Your task to perform on an android device: Add "logitech g pro" to the cart on bestbuy, then select checkout. Image 0: 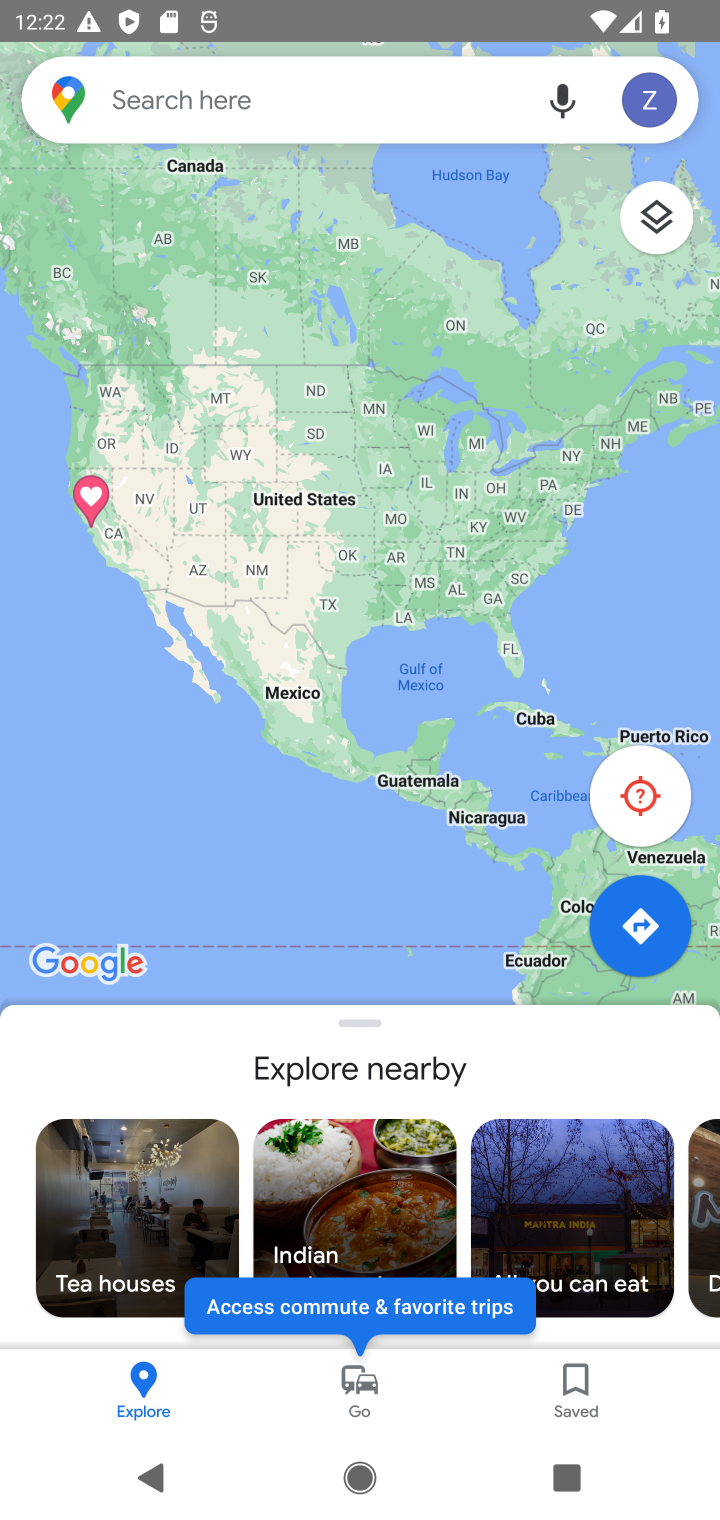
Step 0: press home button
Your task to perform on an android device: Add "logitech g pro" to the cart on bestbuy, then select checkout. Image 1: 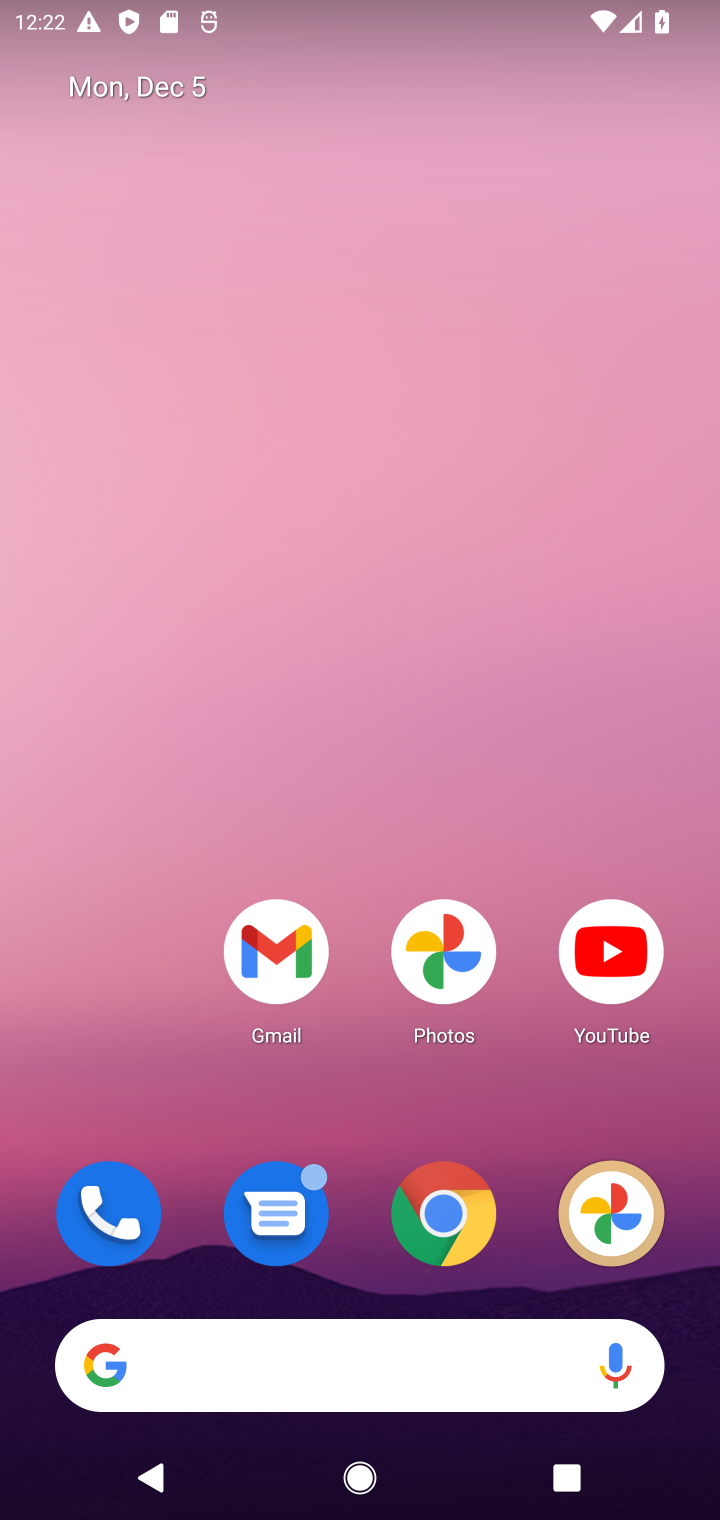
Step 1: click (452, 1223)
Your task to perform on an android device: Add "logitech g pro" to the cart on bestbuy, then select checkout. Image 2: 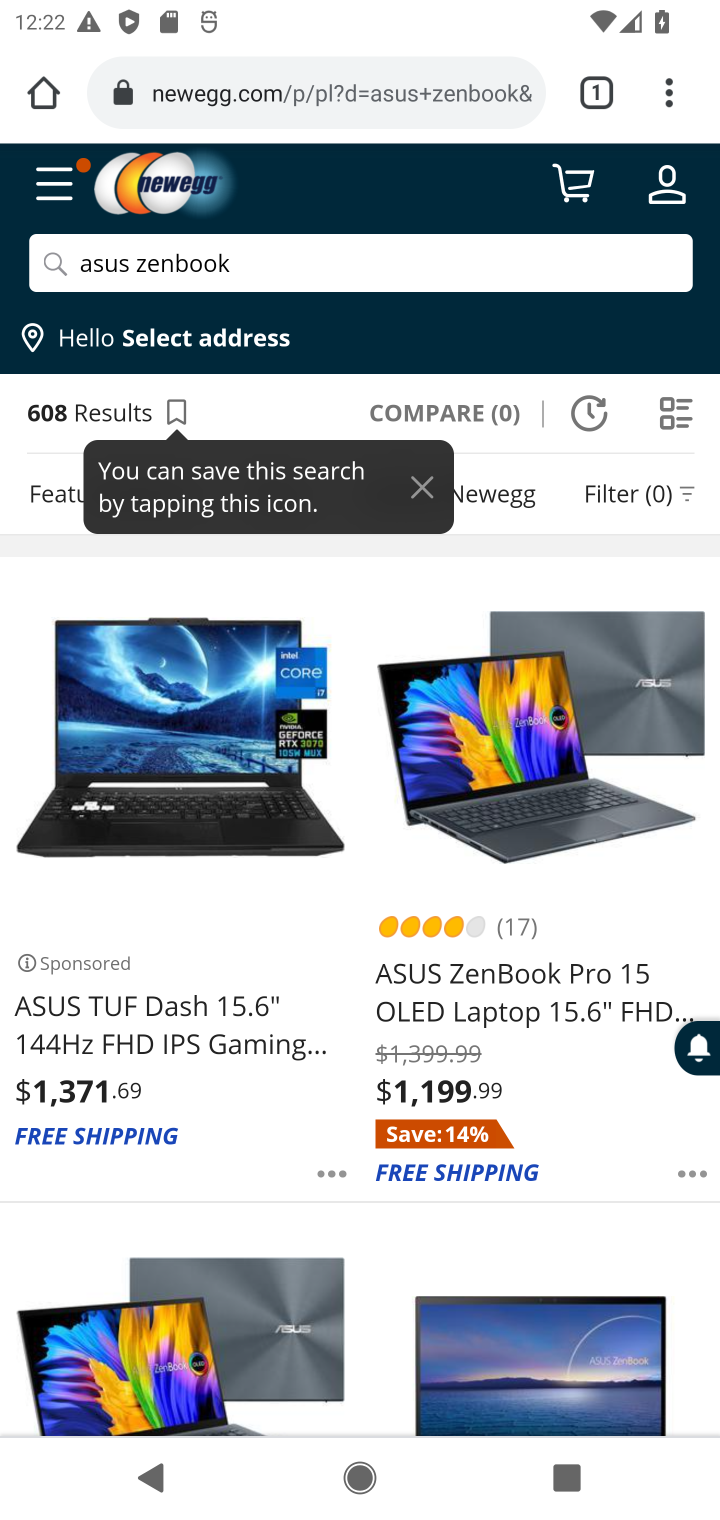
Step 2: click (318, 89)
Your task to perform on an android device: Add "logitech g pro" to the cart on bestbuy, then select checkout. Image 3: 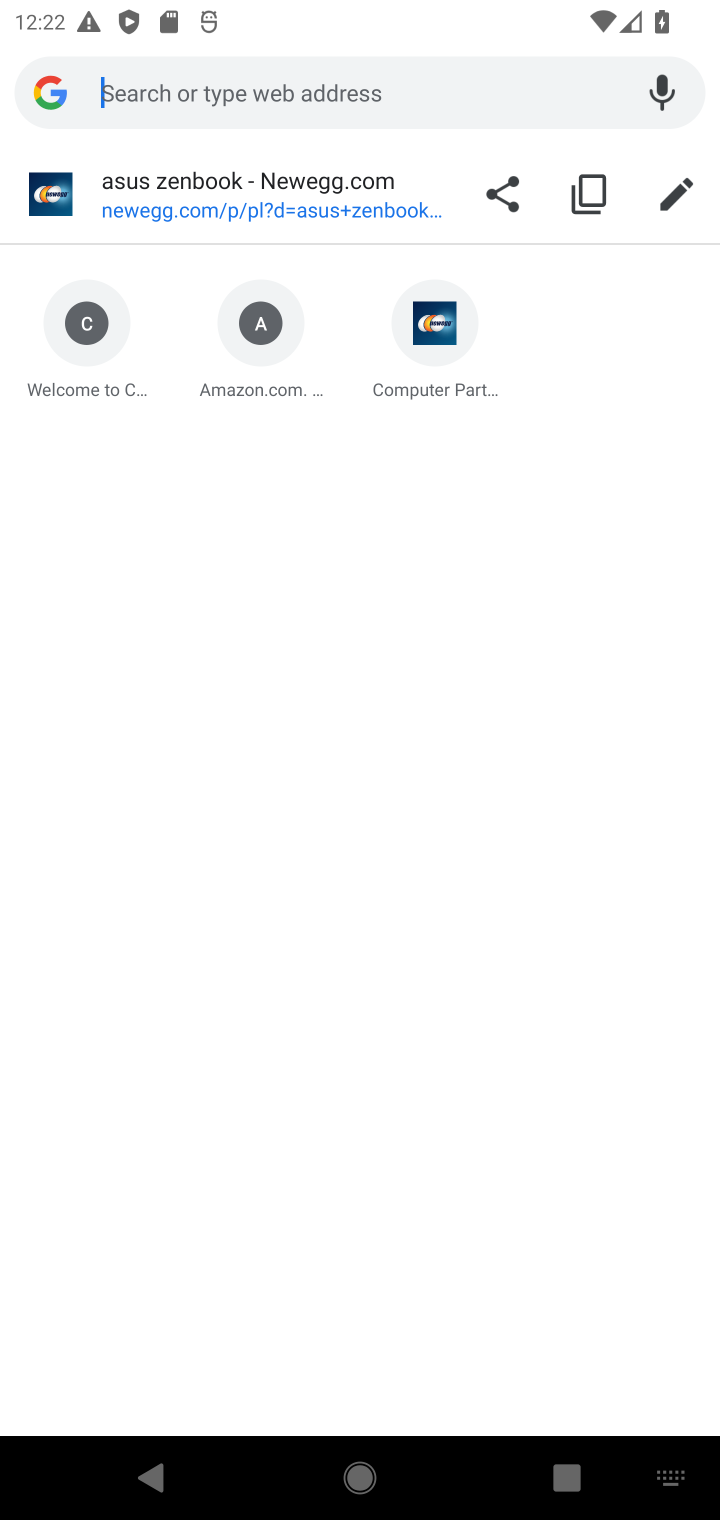
Step 3: type "bestbuy.com"
Your task to perform on an android device: Add "logitech g pro" to the cart on bestbuy, then select checkout. Image 4: 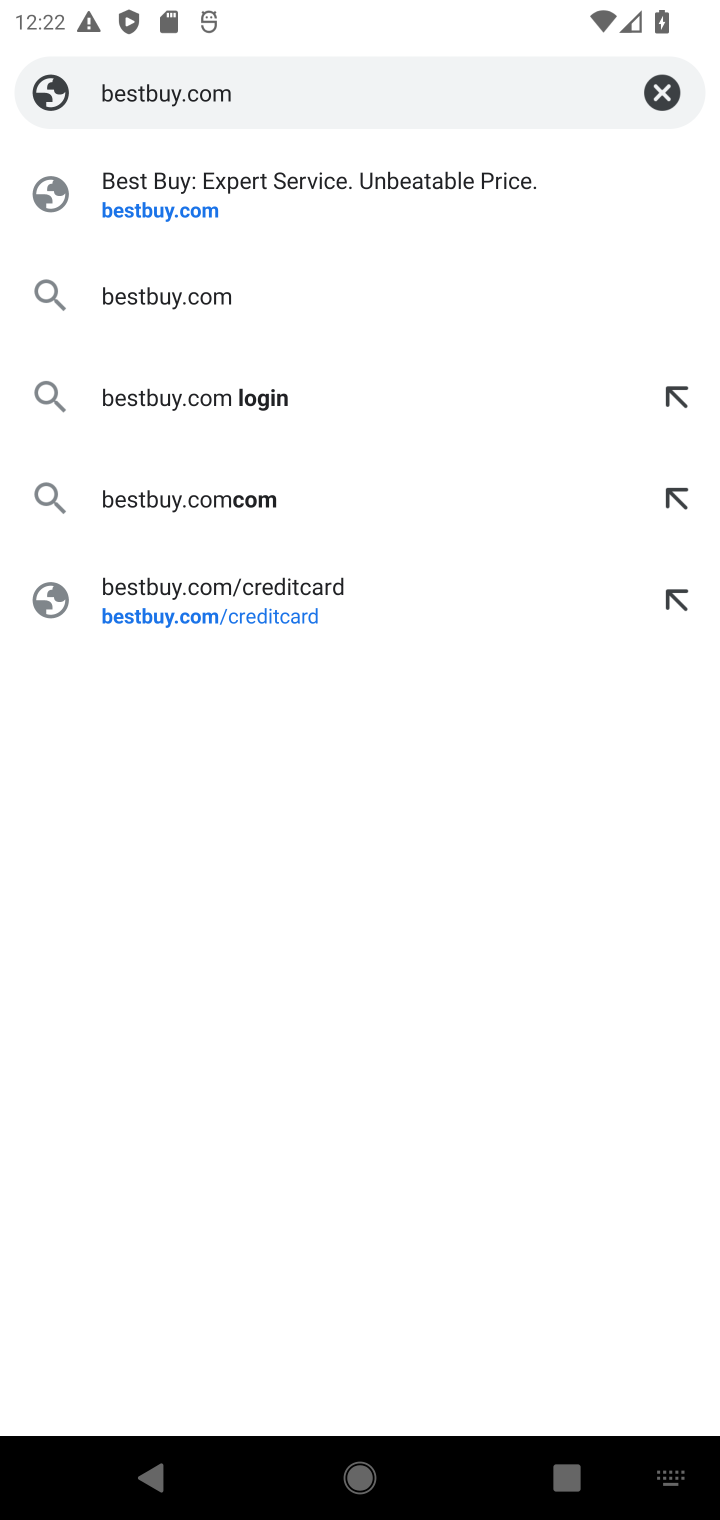
Step 4: click (164, 214)
Your task to perform on an android device: Add "logitech g pro" to the cart on bestbuy, then select checkout. Image 5: 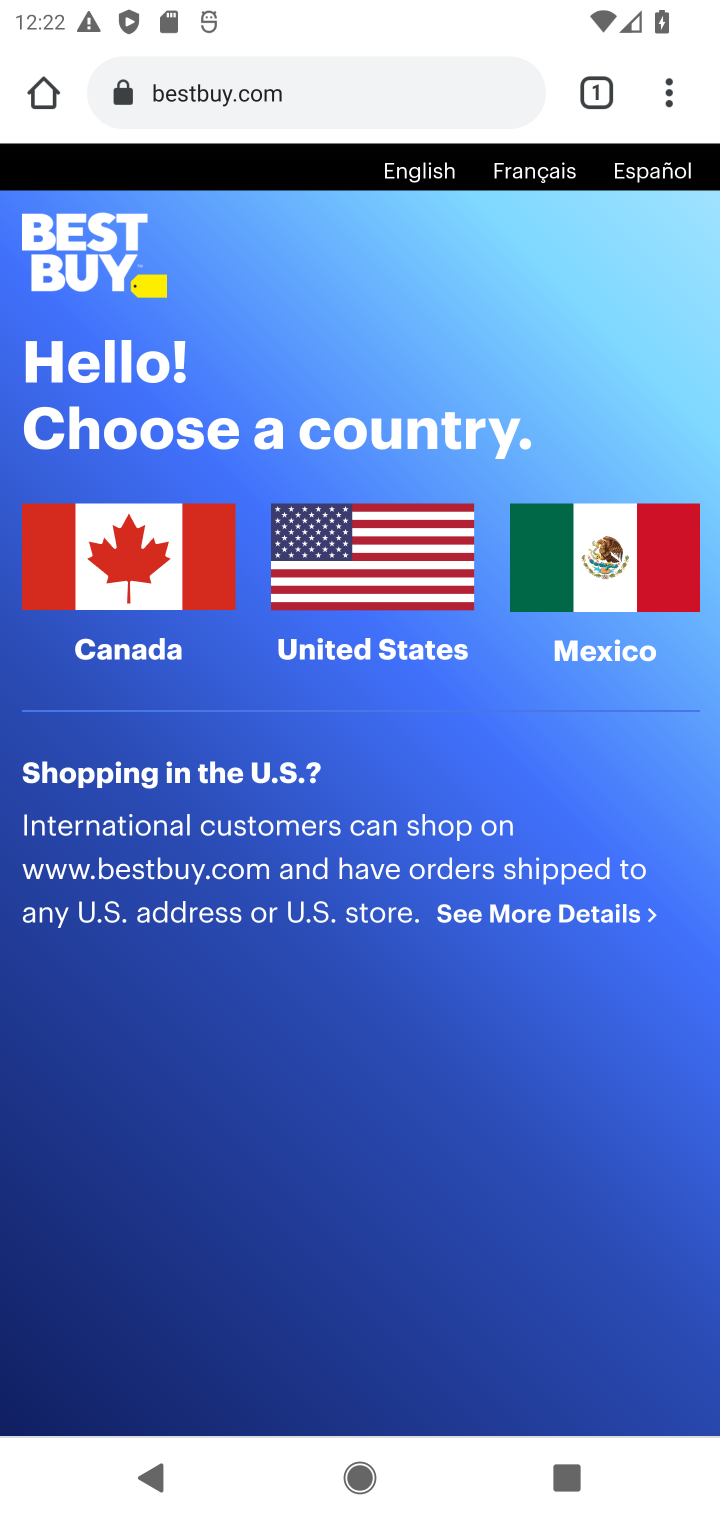
Step 5: click (367, 569)
Your task to perform on an android device: Add "logitech g pro" to the cart on bestbuy, then select checkout. Image 6: 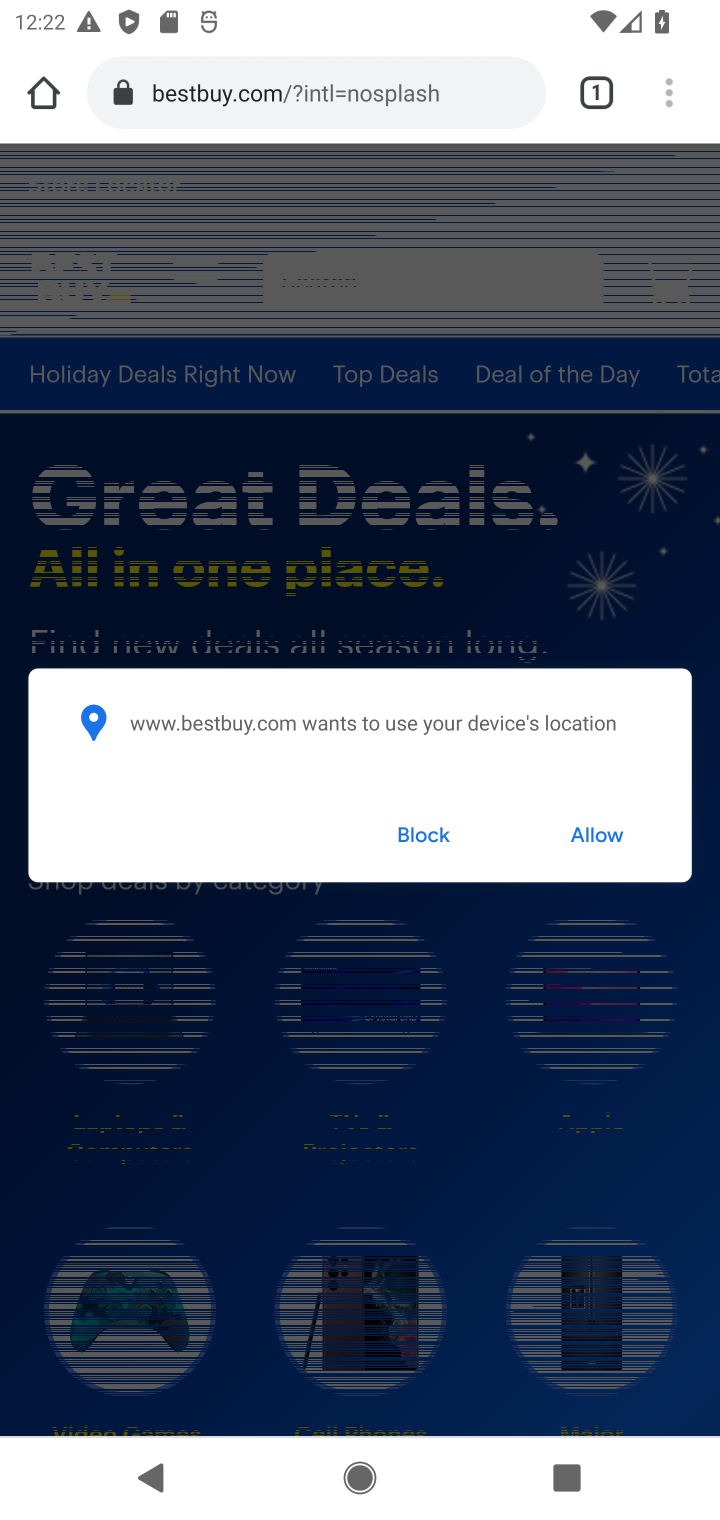
Step 6: click (400, 830)
Your task to perform on an android device: Add "logitech g pro" to the cart on bestbuy, then select checkout. Image 7: 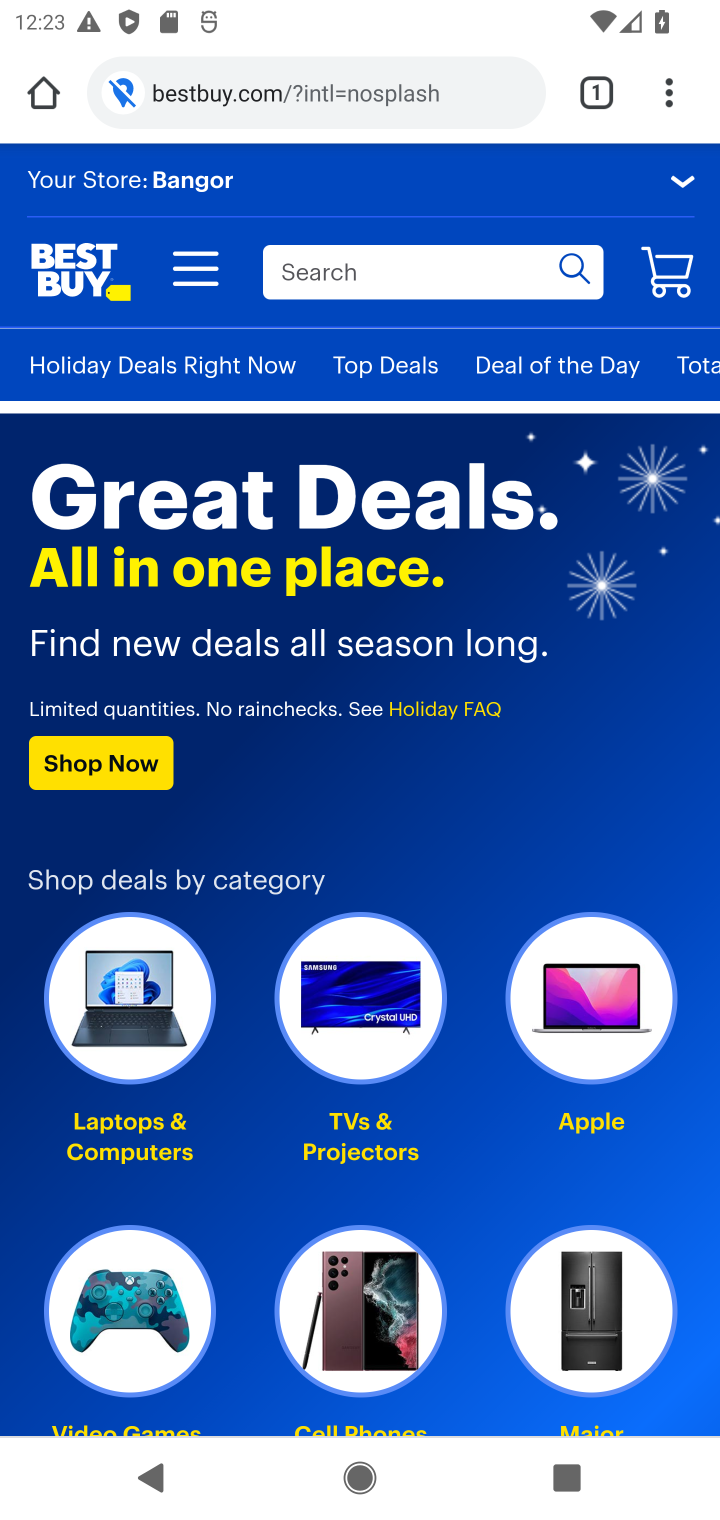
Step 7: click (312, 272)
Your task to perform on an android device: Add "logitech g pro" to the cart on bestbuy, then select checkout. Image 8: 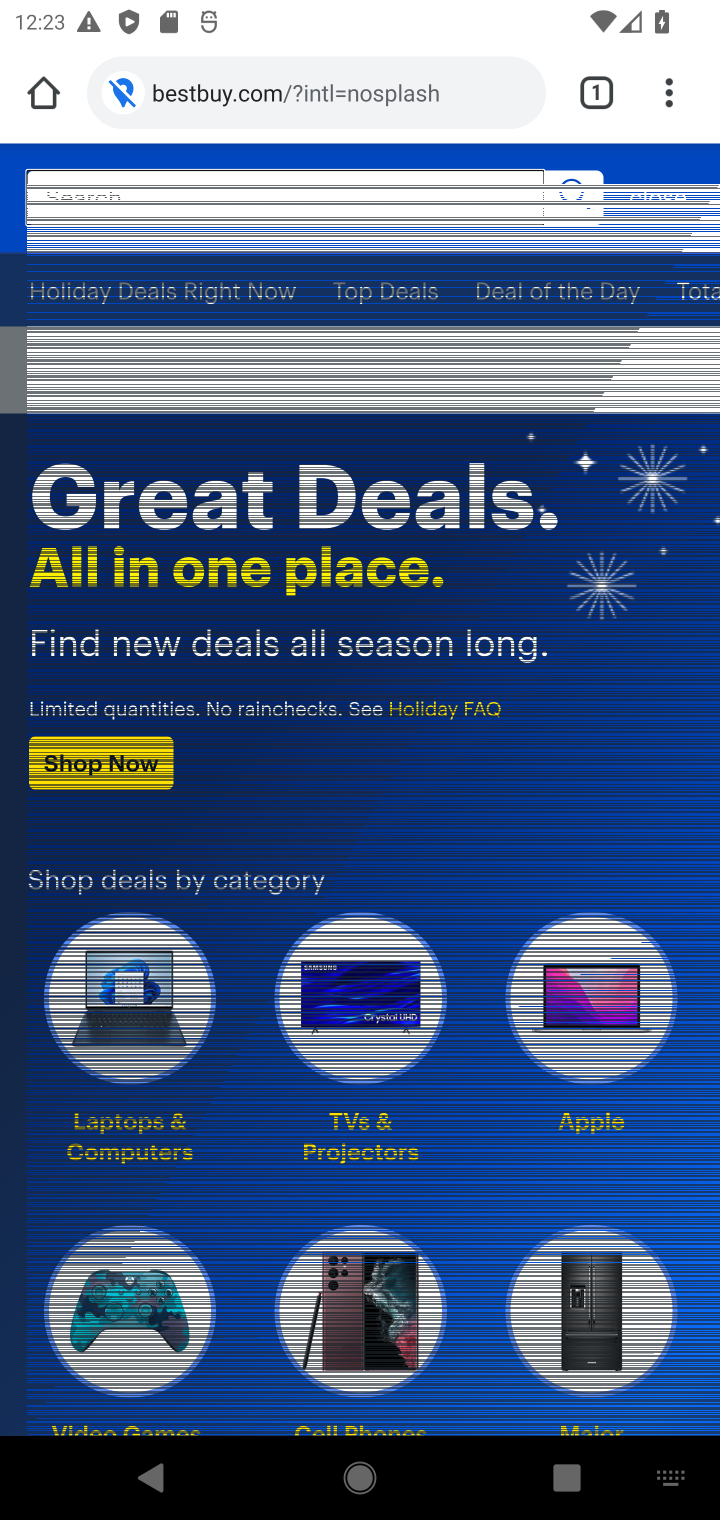
Step 8: type "logitech g pro"
Your task to perform on an android device: Add "logitech g pro" to the cart on bestbuy, then select checkout. Image 9: 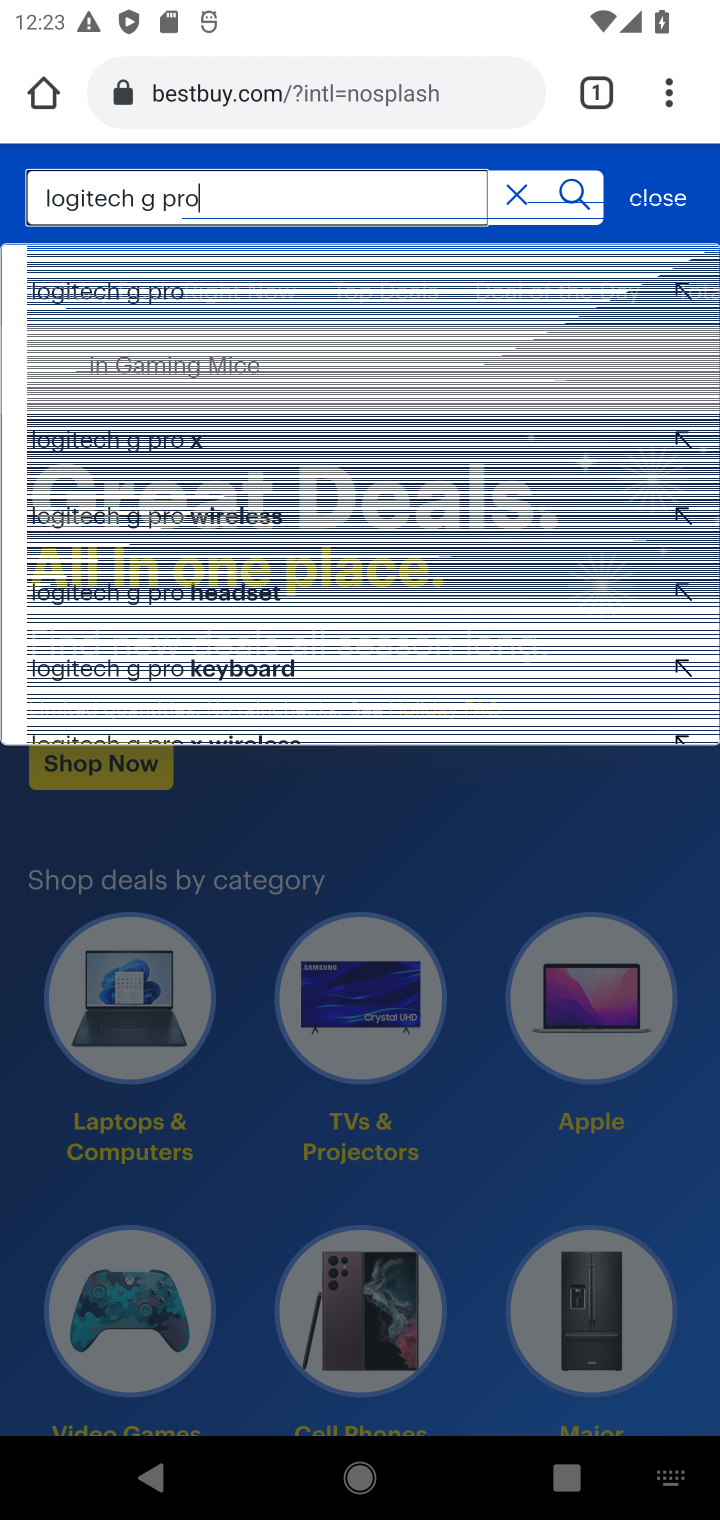
Step 9: click (574, 188)
Your task to perform on an android device: Add "logitech g pro" to the cart on bestbuy, then select checkout. Image 10: 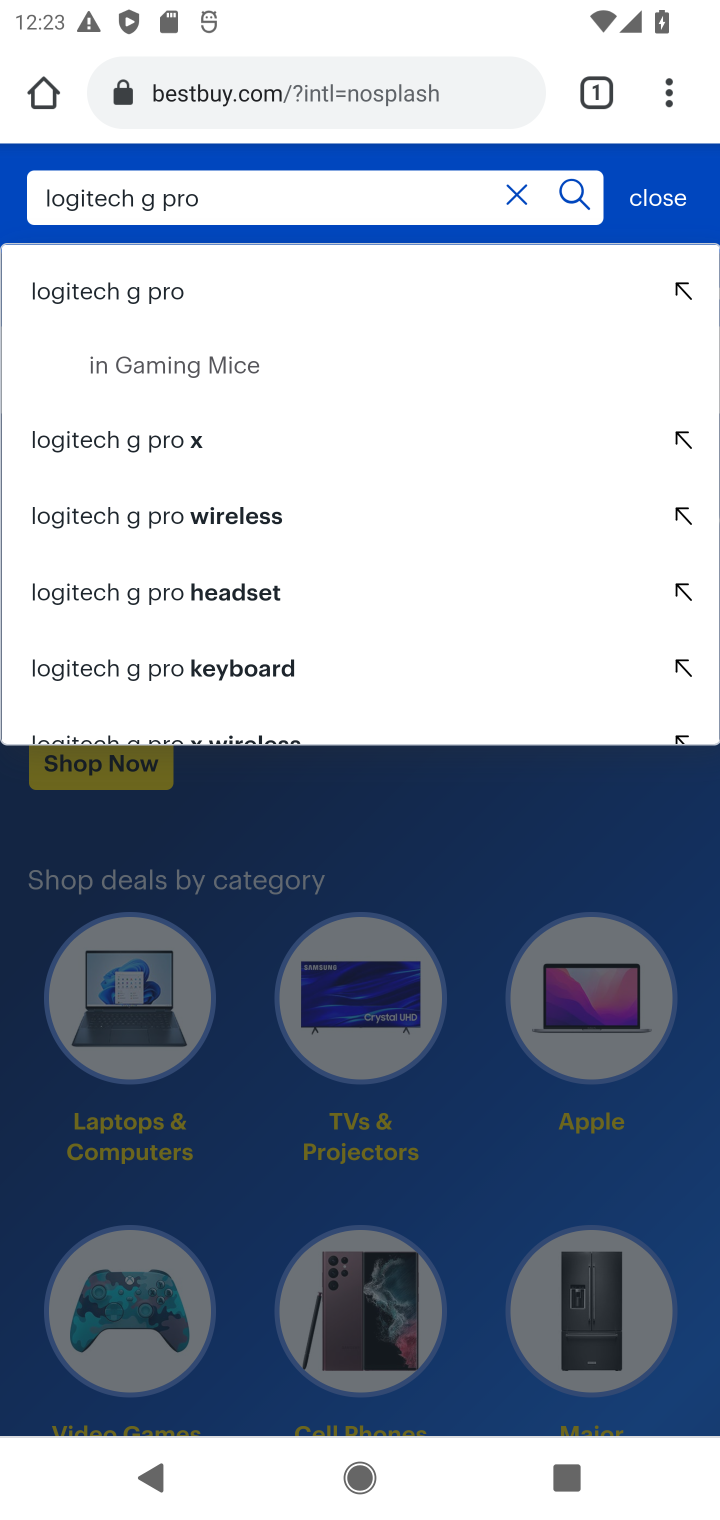
Step 10: click (108, 293)
Your task to perform on an android device: Add "logitech g pro" to the cart on bestbuy, then select checkout. Image 11: 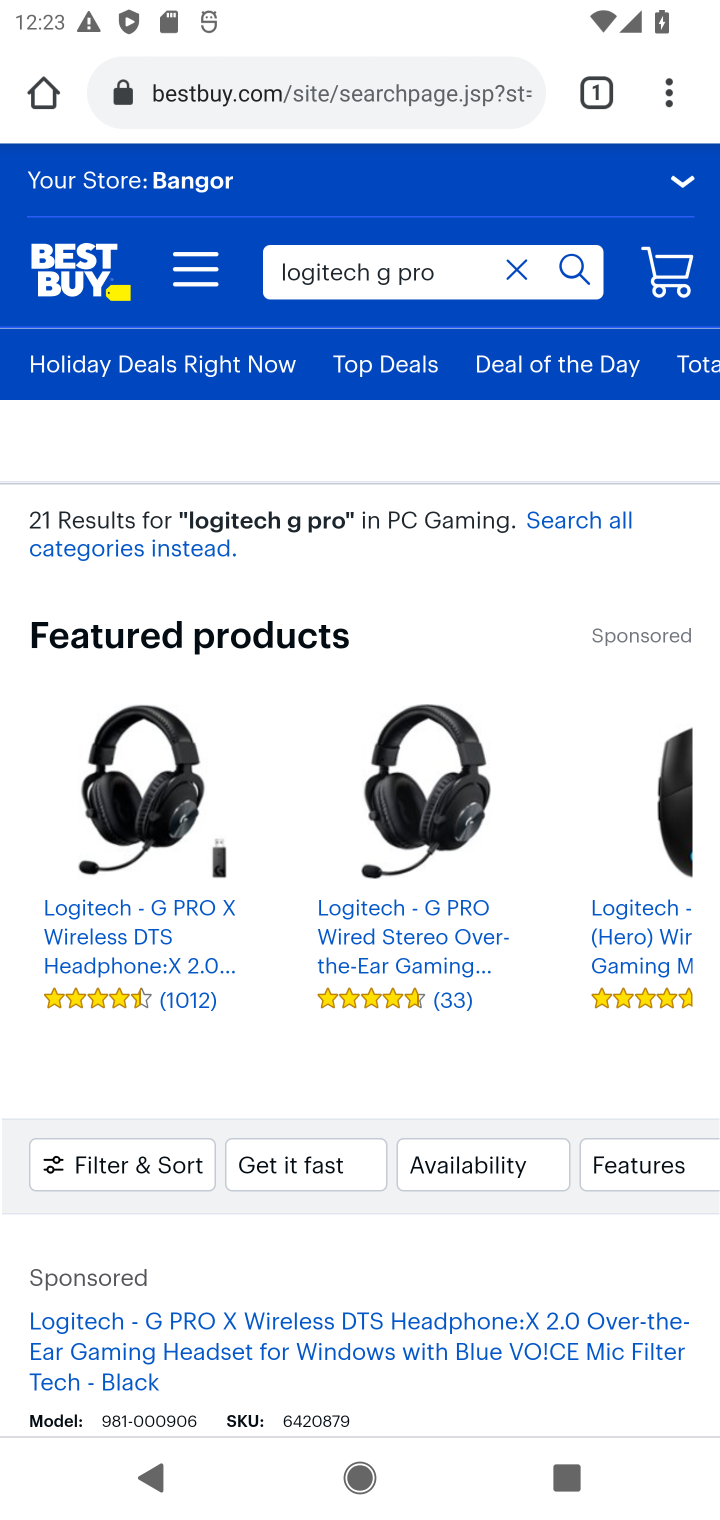
Step 11: drag from (327, 966) to (325, 566)
Your task to perform on an android device: Add "logitech g pro" to the cart on bestbuy, then select checkout. Image 12: 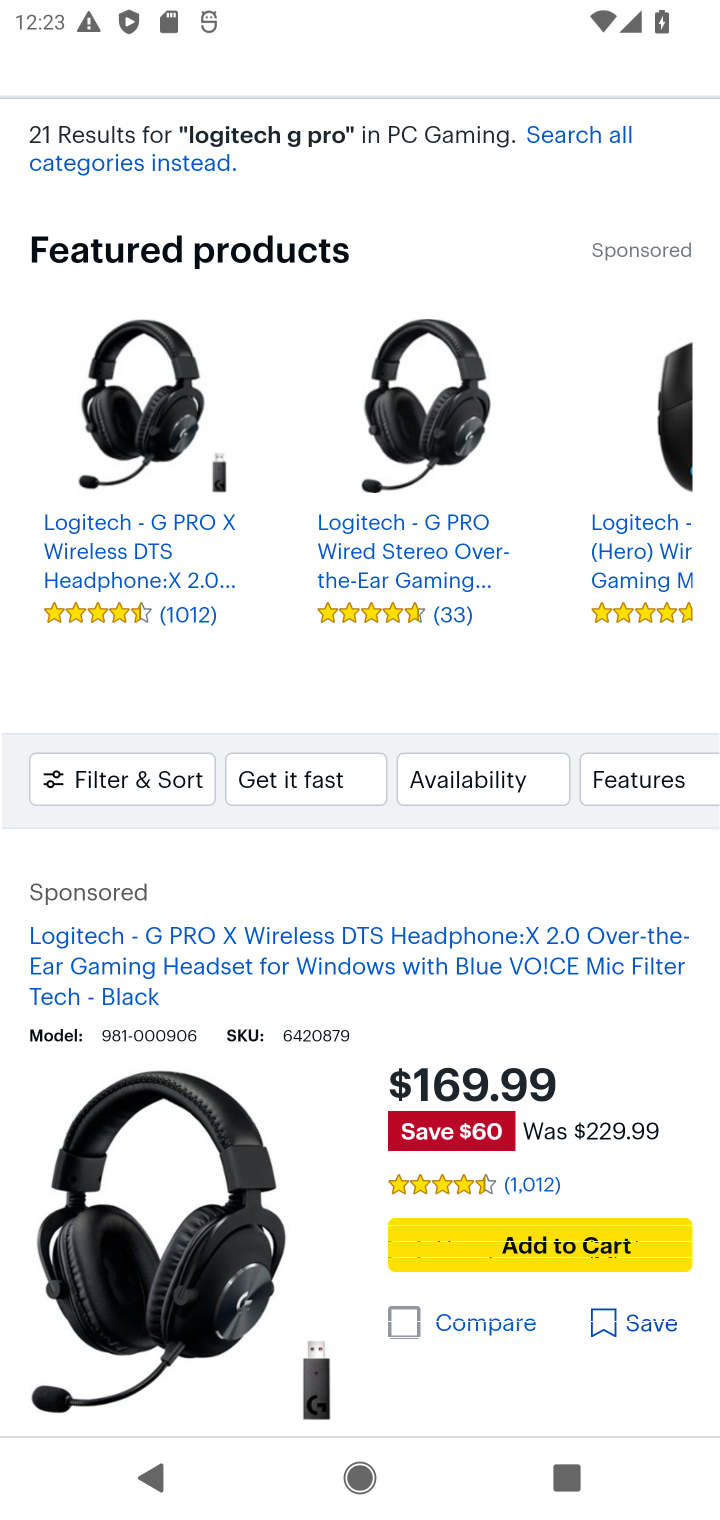
Step 12: drag from (269, 957) to (269, 569)
Your task to perform on an android device: Add "logitech g pro" to the cart on bestbuy, then select checkout. Image 13: 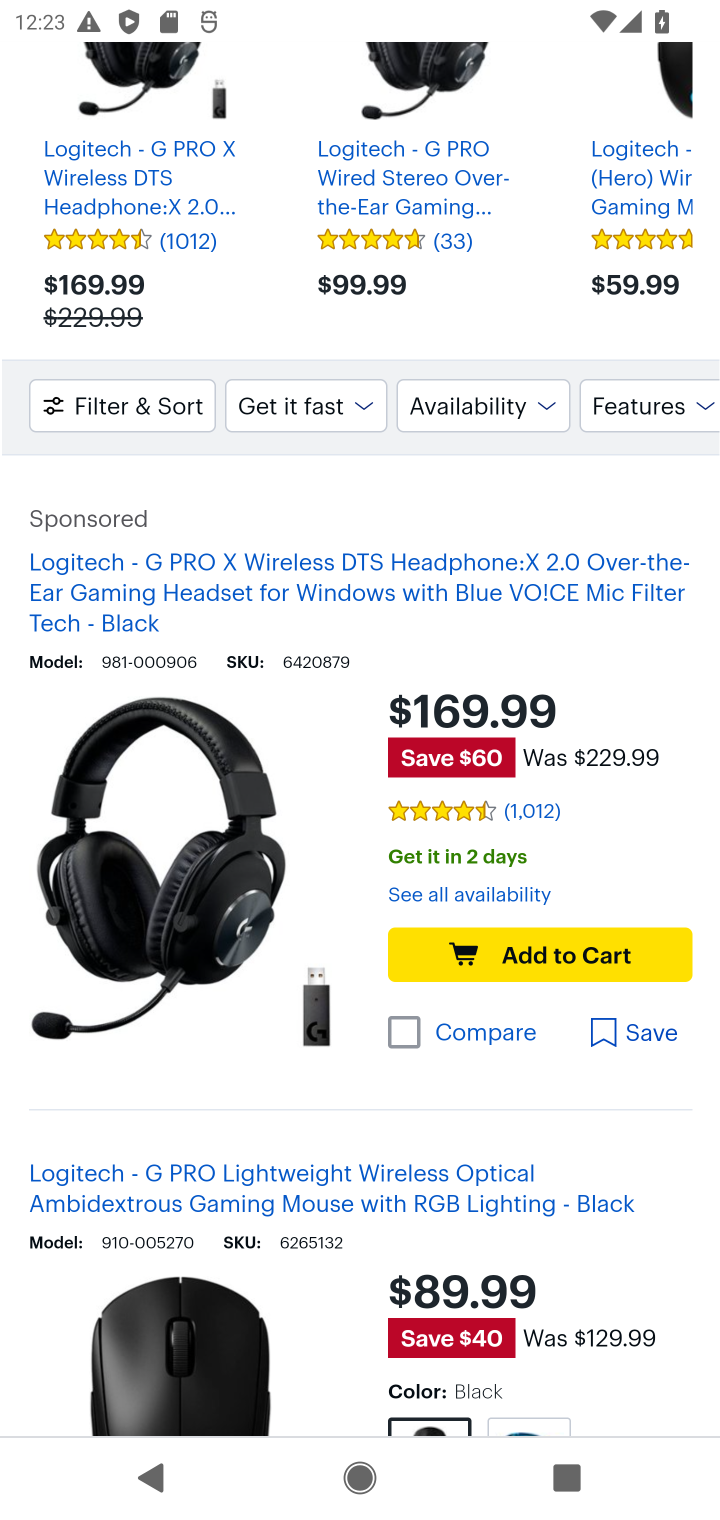
Step 13: click (547, 959)
Your task to perform on an android device: Add "logitech g pro" to the cart on bestbuy, then select checkout. Image 14: 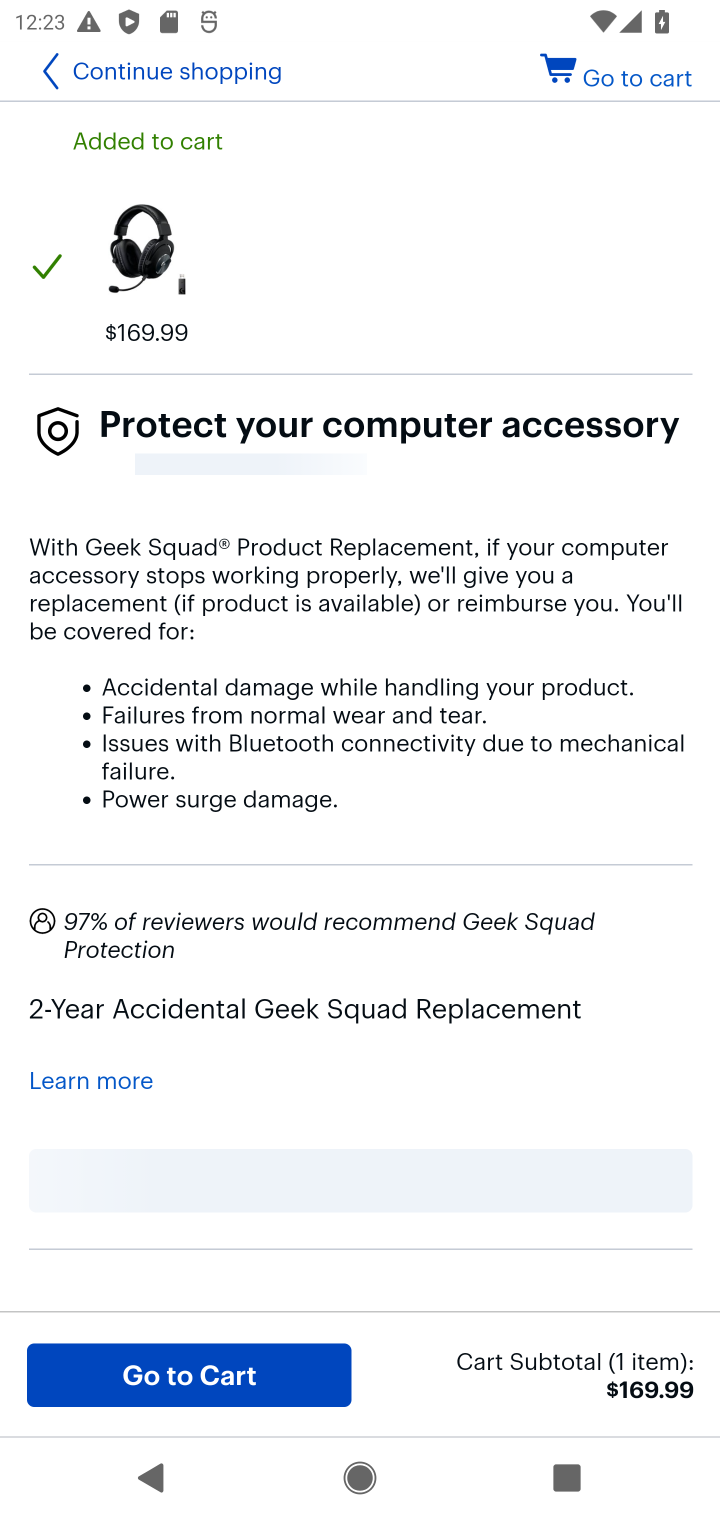
Step 14: click (638, 78)
Your task to perform on an android device: Add "logitech g pro" to the cart on bestbuy, then select checkout. Image 15: 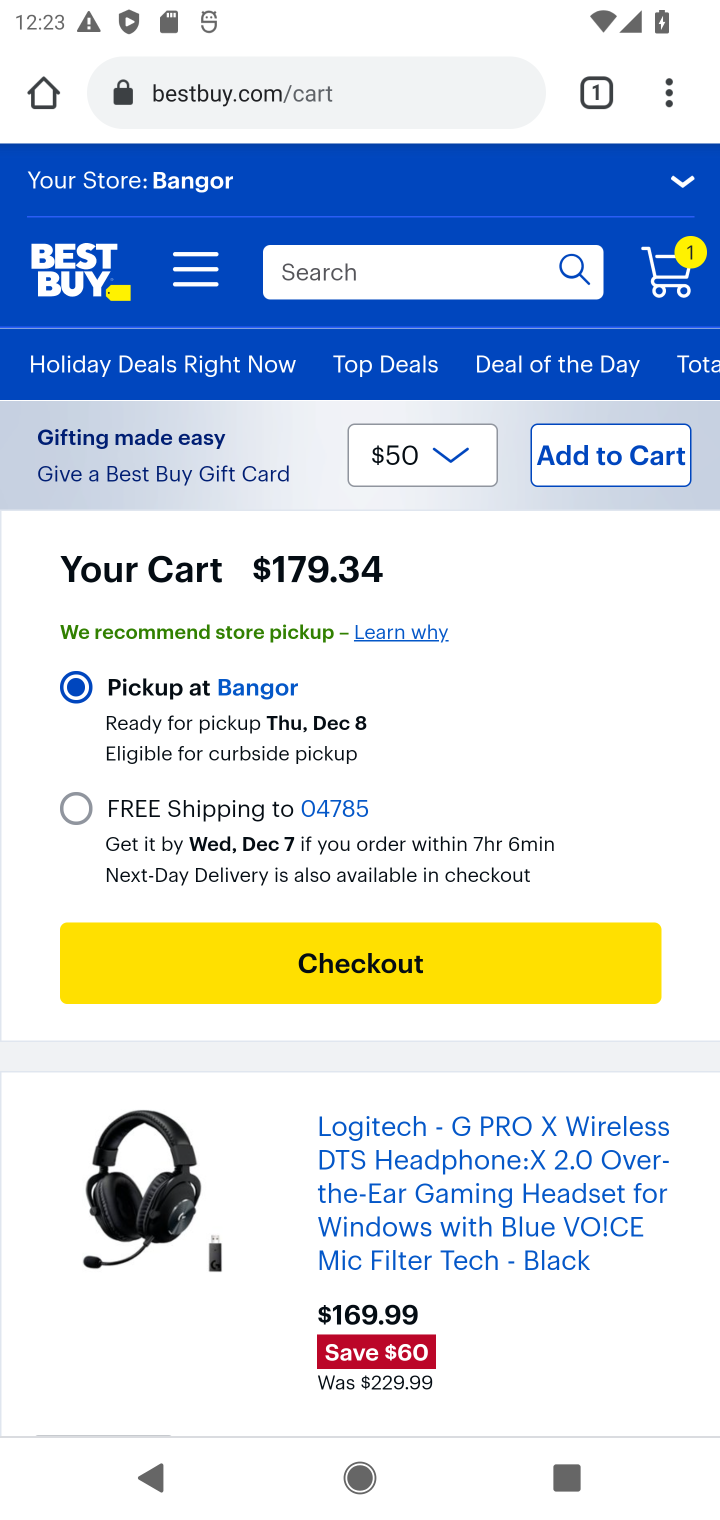
Step 15: click (301, 923)
Your task to perform on an android device: Add "logitech g pro" to the cart on bestbuy, then select checkout. Image 16: 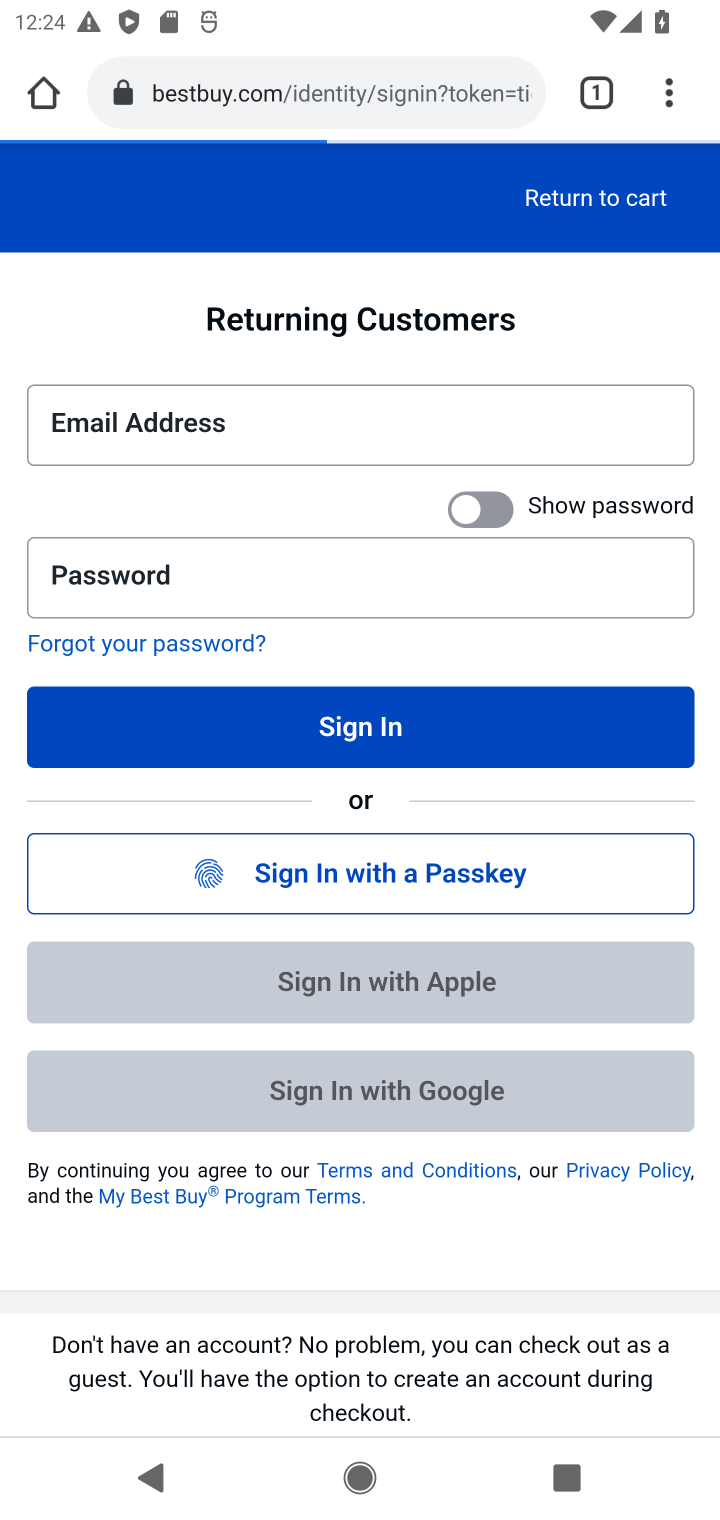
Step 16: task complete